Your task to perform on an android device: toggle pop-ups in chrome Image 0: 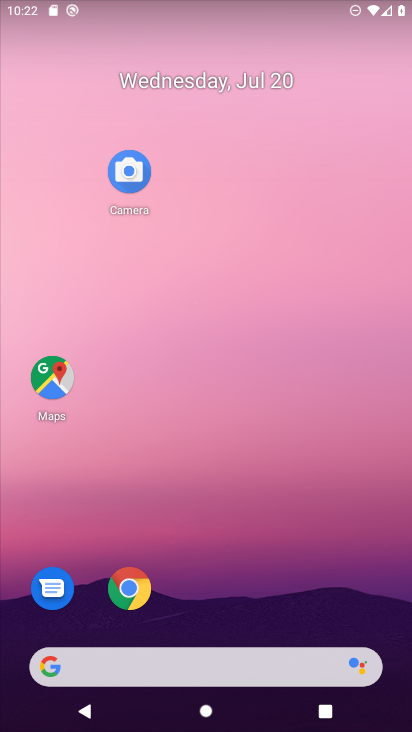
Step 0: press home button
Your task to perform on an android device: toggle pop-ups in chrome Image 1: 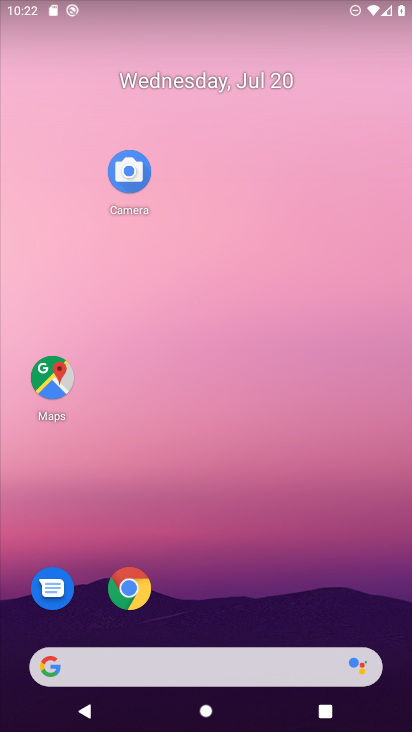
Step 1: click (123, 590)
Your task to perform on an android device: toggle pop-ups in chrome Image 2: 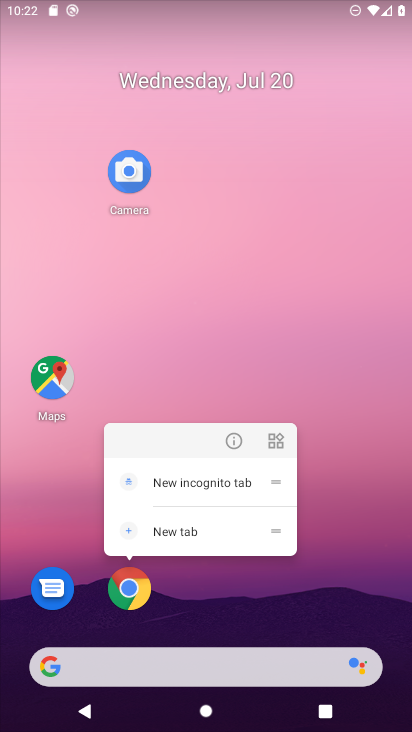
Step 2: click (144, 593)
Your task to perform on an android device: toggle pop-ups in chrome Image 3: 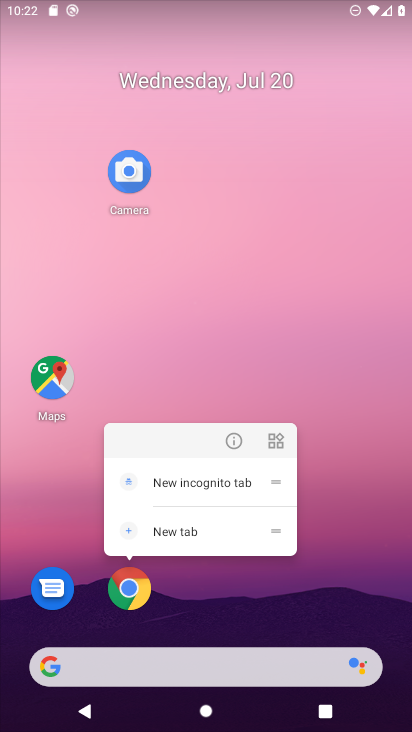
Step 3: click (104, 562)
Your task to perform on an android device: toggle pop-ups in chrome Image 4: 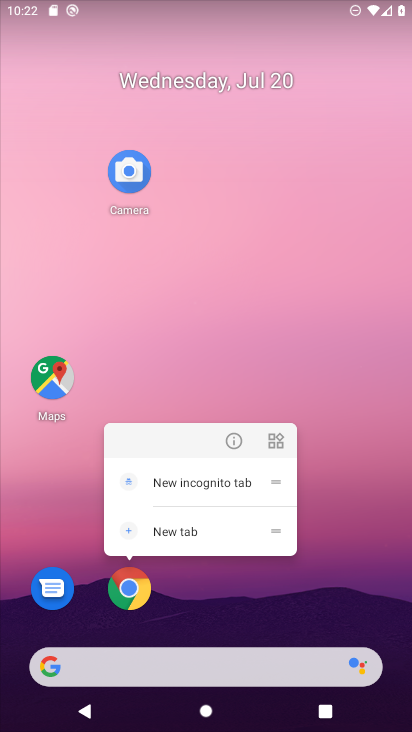
Step 4: click (127, 589)
Your task to perform on an android device: toggle pop-ups in chrome Image 5: 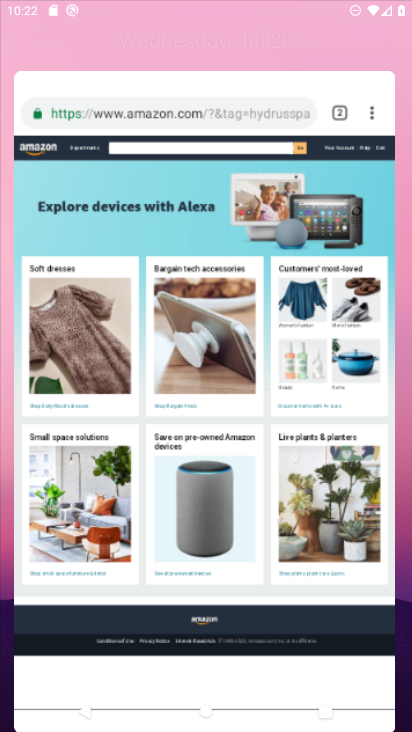
Step 5: click (126, 589)
Your task to perform on an android device: toggle pop-ups in chrome Image 6: 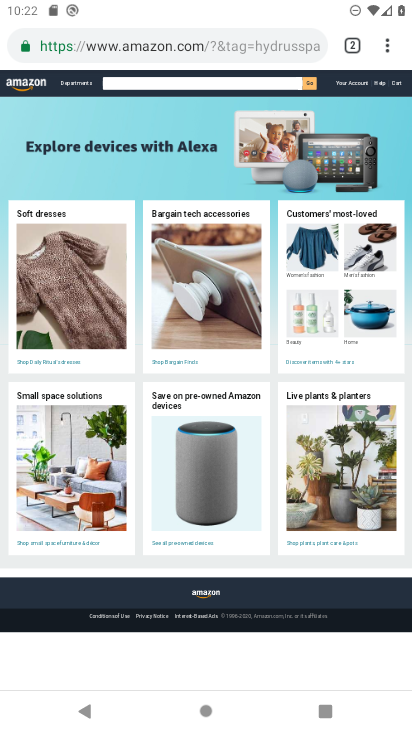
Step 6: drag from (387, 43) to (232, 551)
Your task to perform on an android device: toggle pop-ups in chrome Image 7: 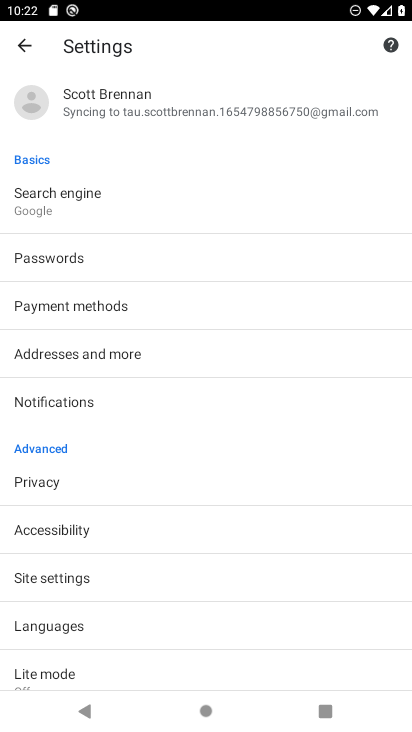
Step 7: click (59, 574)
Your task to perform on an android device: toggle pop-ups in chrome Image 8: 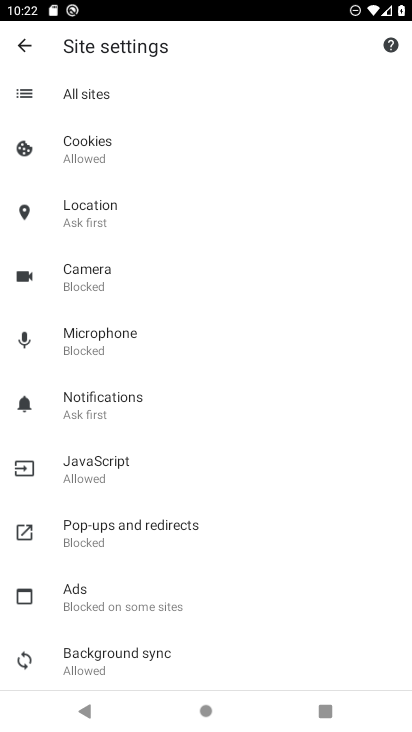
Step 8: click (112, 538)
Your task to perform on an android device: toggle pop-ups in chrome Image 9: 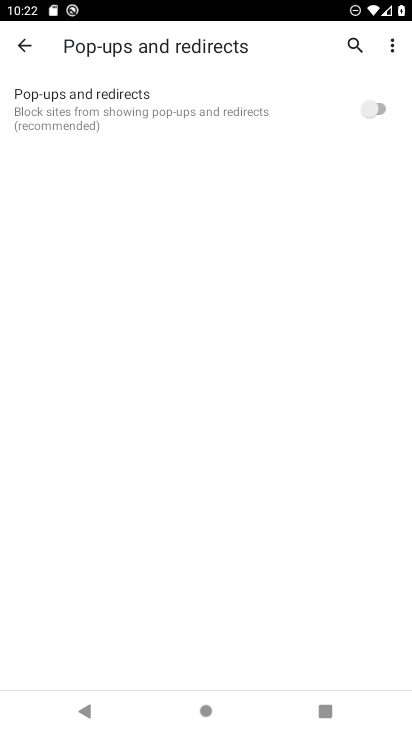
Step 9: click (380, 112)
Your task to perform on an android device: toggle pop-ups in chrome Image 10: 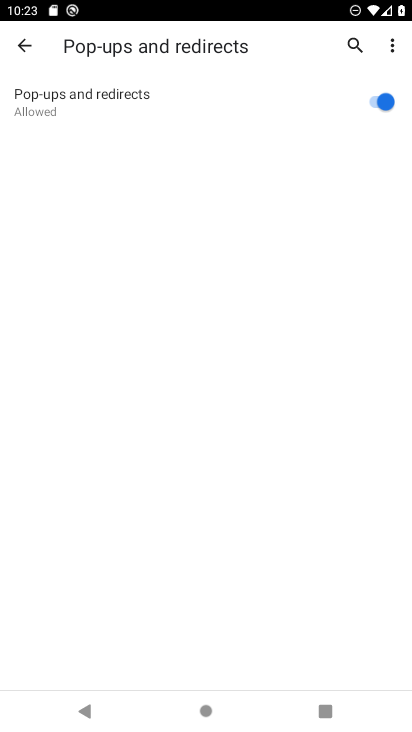
Step 10: task complete